Your task to perform on an android device: turn on the 12-hour format for clock Image 0: 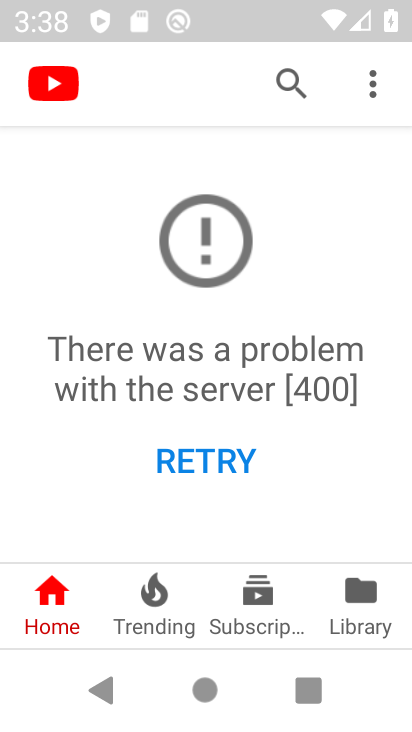
Step 0: press back button
Your task to perform on an android device: turn on the 12-hour format for clock Image 1: 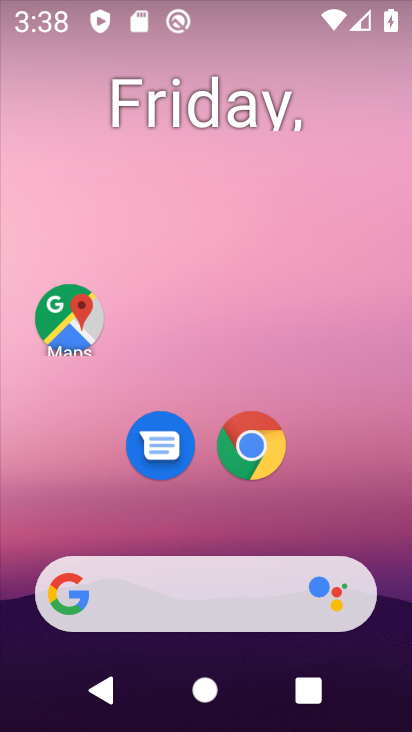
Step 1: drag from (383, 570) to (242, 9)
Your task to perform on an android device: turn on the 12-hour format for clock Image 2: 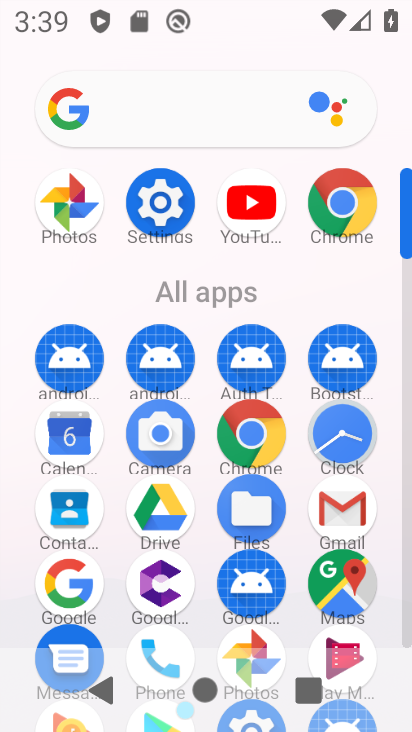
Step 2: click (340, 432)
Your task to perform on an android device: turn on the 12-hour format for clock Image 3: 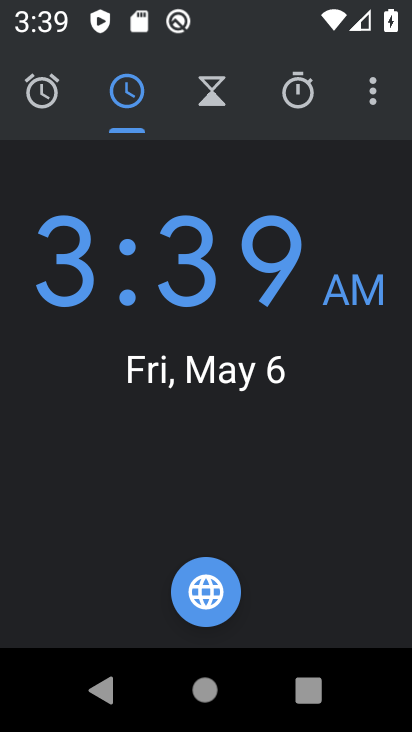
Step 3: drag from (370, 98) to (314, 166)
Your task to perform on an android device: turn on the 12-hour format for clock Image 4: 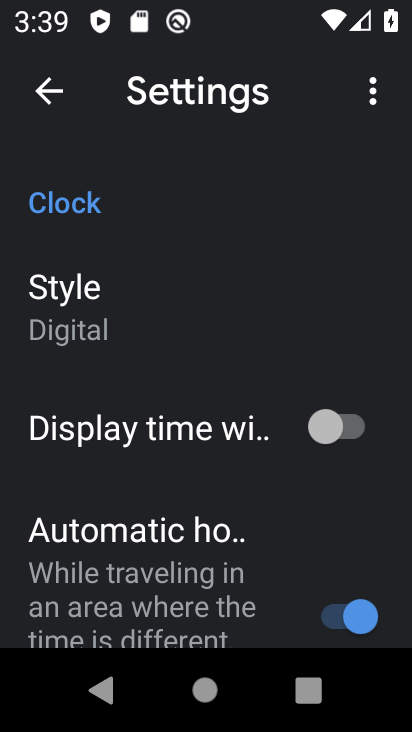
Step 4: drag from (225, 555) to (214, 191)
Your task to perform on an android device: turn on the 12-hour format for clock Image 5: 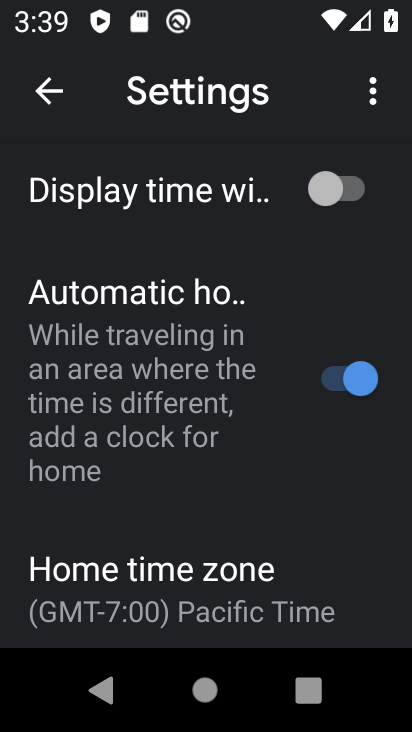
Step 5: drag from (198, 575) to (225, 185)
Your task to perform on an android device: turn on the 12-hour format for clock Image 6: 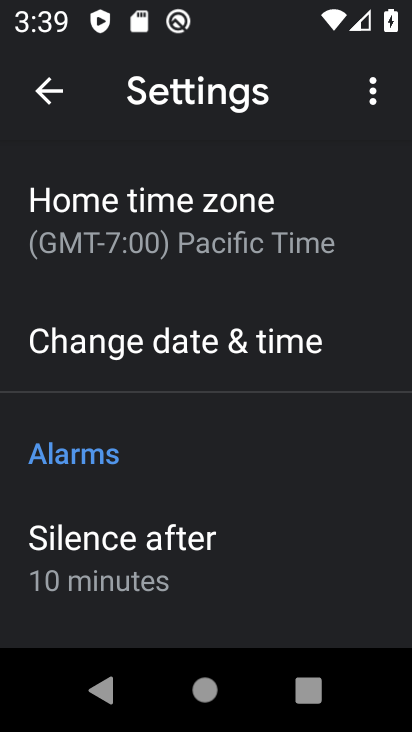
Step 6: click (173, 356)
Your task to perform on an android device: turn on the 12-hour format for clock Image 7: 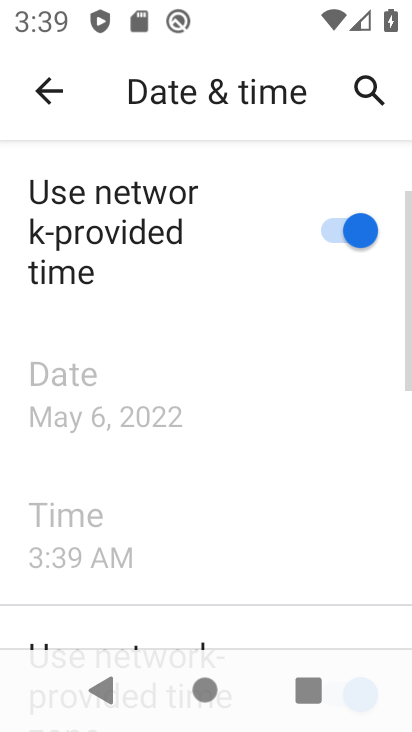
Step 7: task complete